Your task to perform on an android device: Go to settings Image 0: 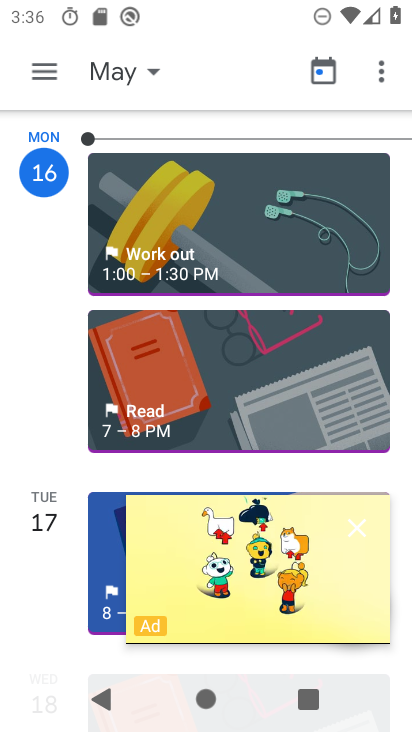
Step 0: click (377, 507)
Your task to perform on an android device: Go to settings Image 1: 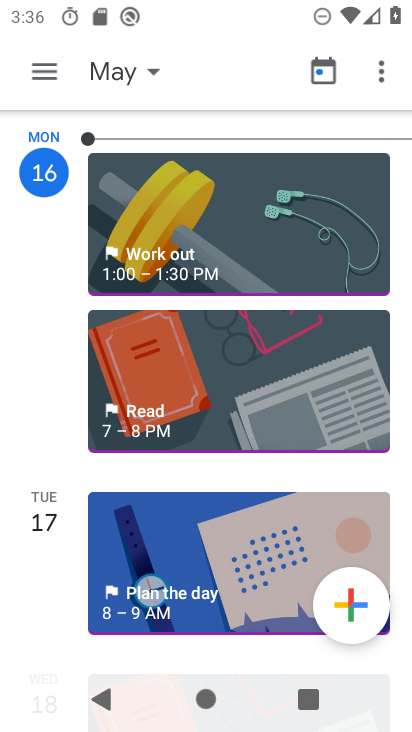
Step 1: press home button
Your task to perform on an android device: Go to settings Image 2: 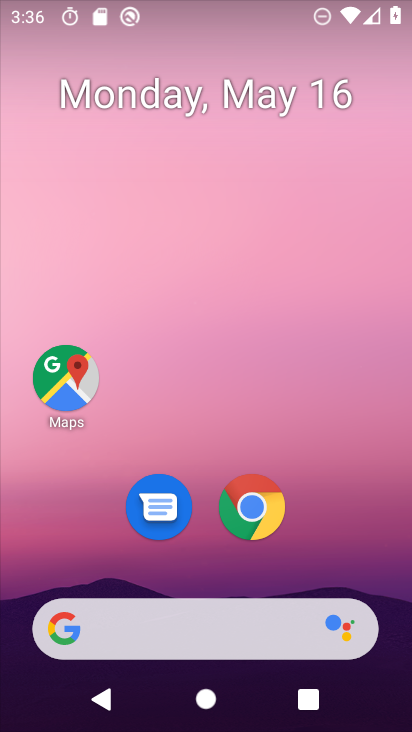
Step 2: drag from (383, 512) to (395, 7)
Your task to perform on an android device: Go to settings Image 3: 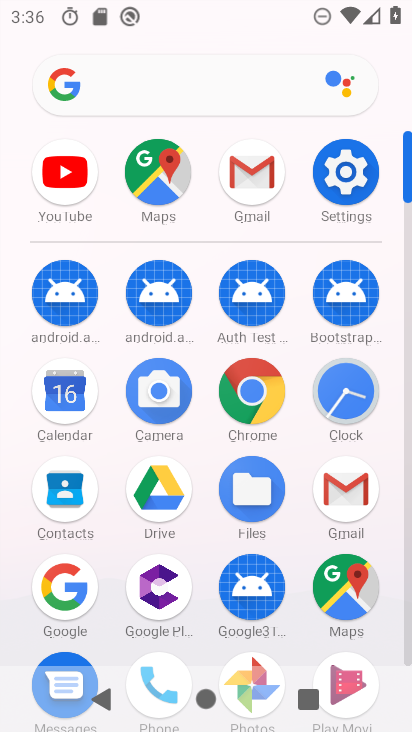
Step 3: click (351, 179)
Your task to perform on an android device: Go to settings Image 4: 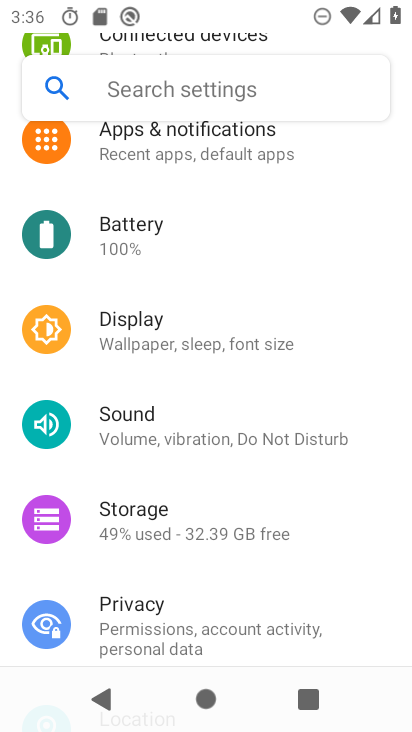
Step 4: task complete